Your task to perform on an android device: When is my next meeting? Image 0: 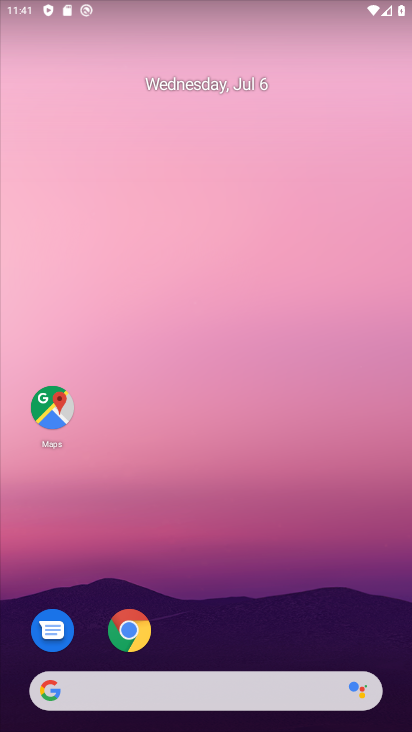
Step 0: drag from (203, 582) to (192, 231)
Your task to perform on an android device: When is my next meeting? Image 1: 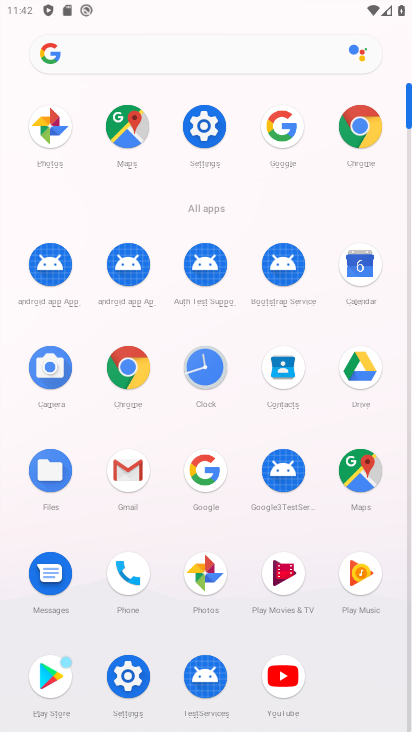
Step 1: click (365, 272)
Your task to perform on an android device: When is my next meeting? Image 2: 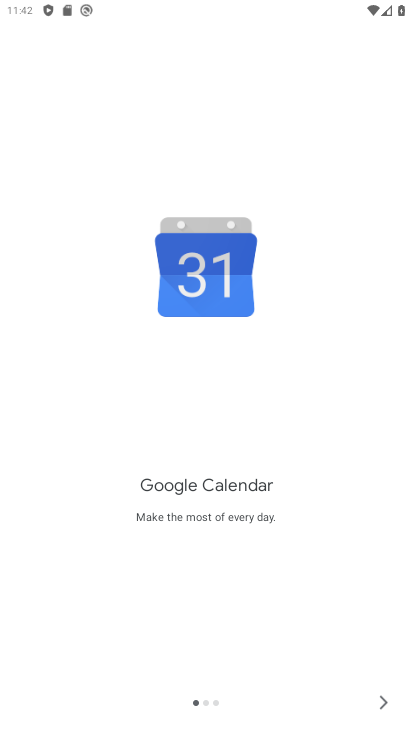
Step 2: click (380, 706)
Your task to perform on an android device: When is my next meeting? Image 3: 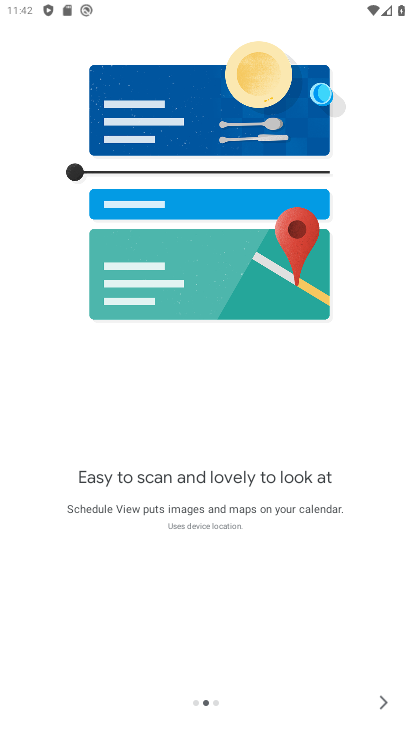
Step 3: click (381, 706)
Your task to perform on an android device: When is my next meeting? Image 4: 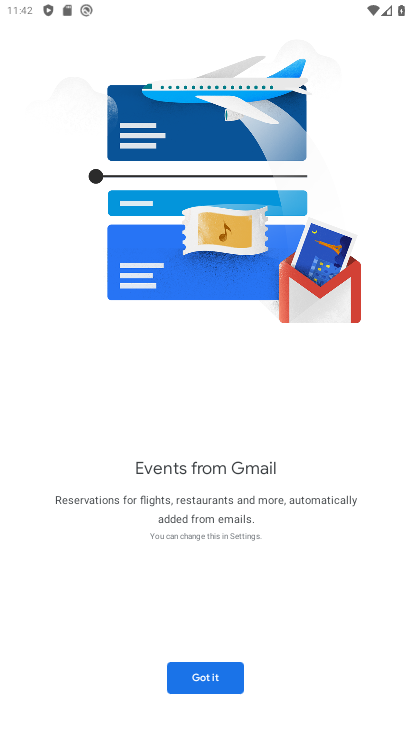
Step 4: click (216, 676)
Your task to perform on an android device: When is my next meeting? Image 5: 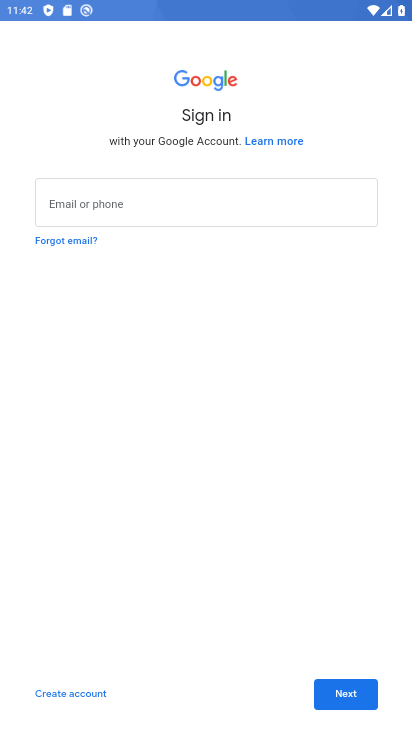
Step 5: press back button
Your task to perform on an android device: When is my next meeting? Image 6: 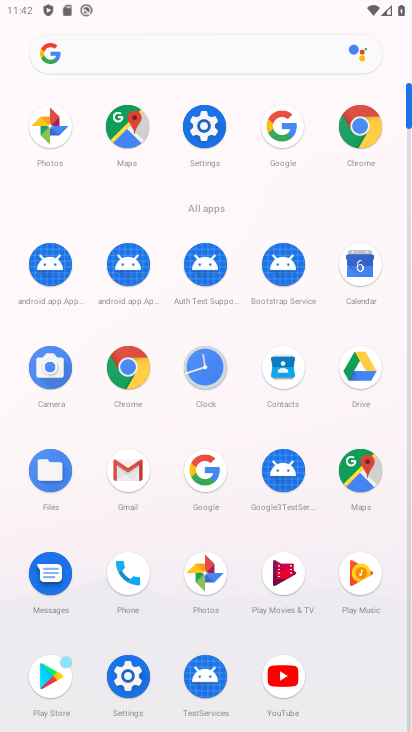
Step 6: click (361, 286)
Your task to perform on an android device: When is my next meeting? Image 7: 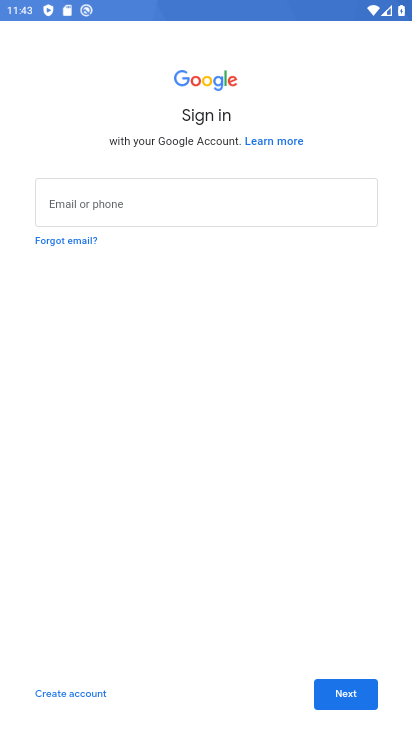
Step 7: task complete